Your task to perform on an android device: See recent photos Image 0: 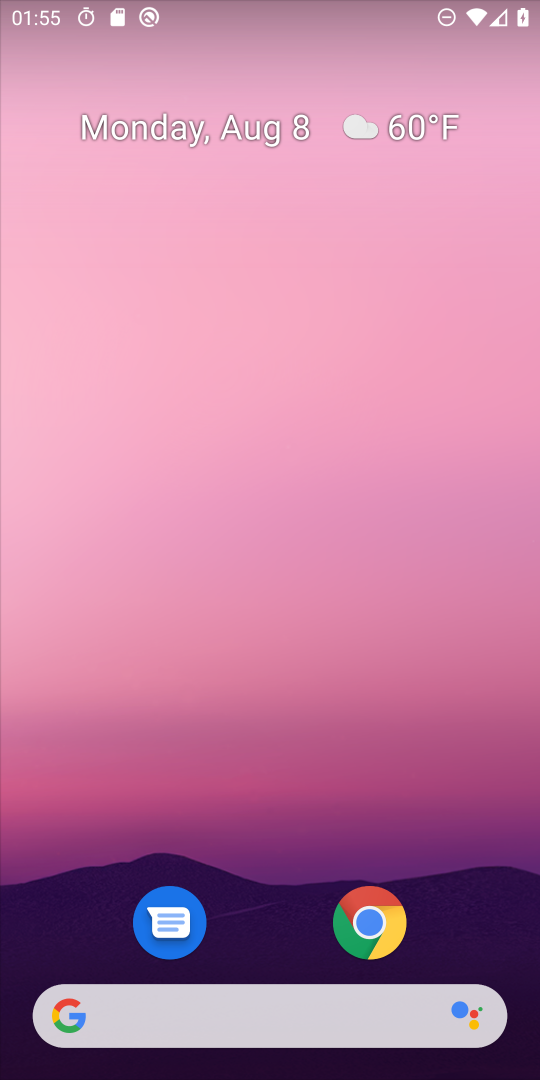
Step 0: drag from (265, 866) to (313, 199)
Your task to perform on an android device: See recent photos Image 1: 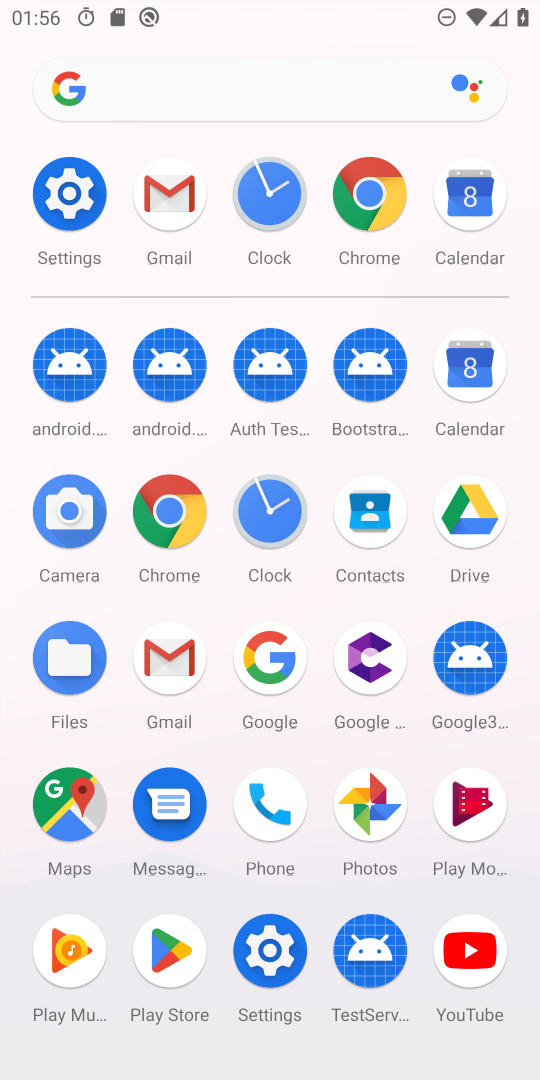
Step 1: click (378, 804)
Your task to perform on an android device: See recent photos Image 2: 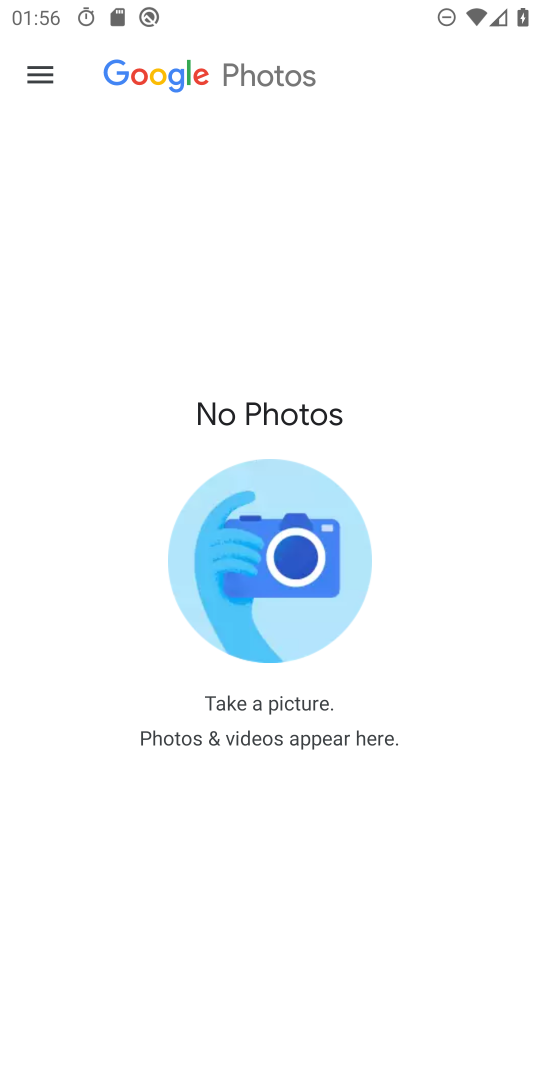
Step 2: task complete